Your task to perform on an android device: Go to ESPN.com Image 0: 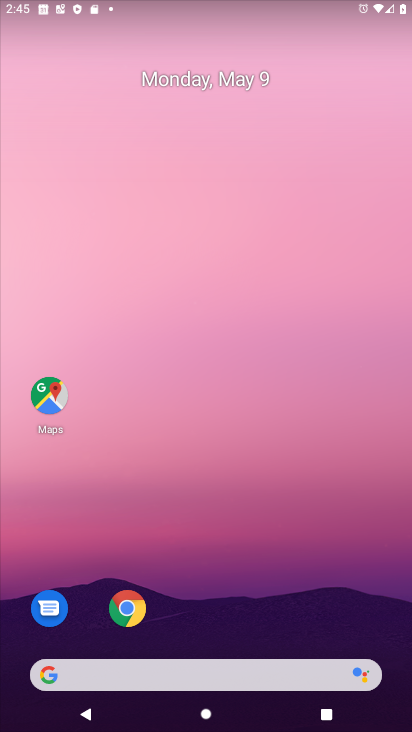
Step 0: click (233, 674)
Your task to perform on an android device: Go to ESPN.com Image 1: 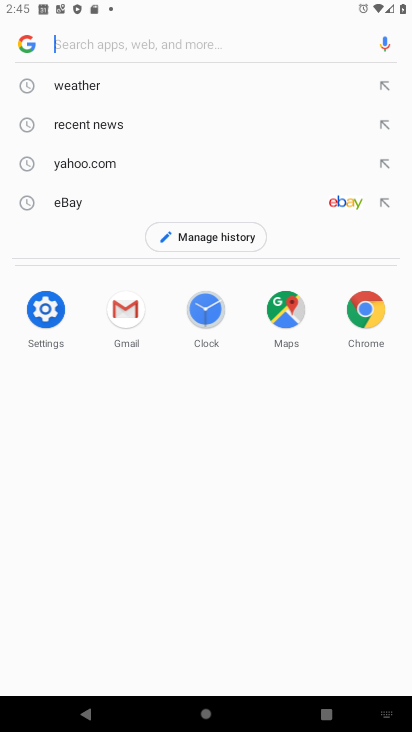
Step 1: type "espn.com"
Your task to perform on an android device: Go to ESPN.com Image 2: 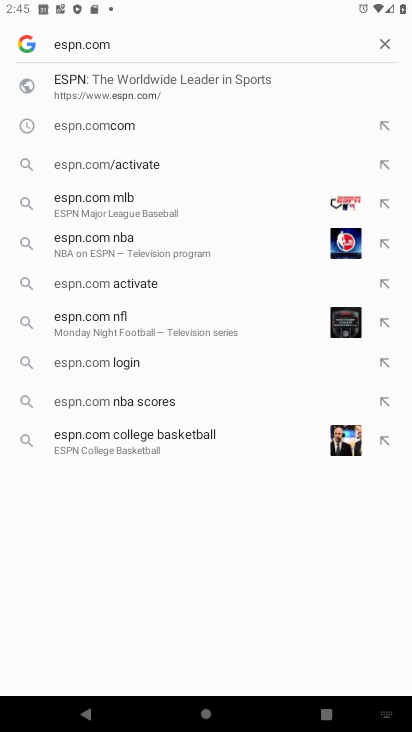
Step 2: click (142, 79)
Your task to perform on an android device: Go to ESPN.com Image 3: 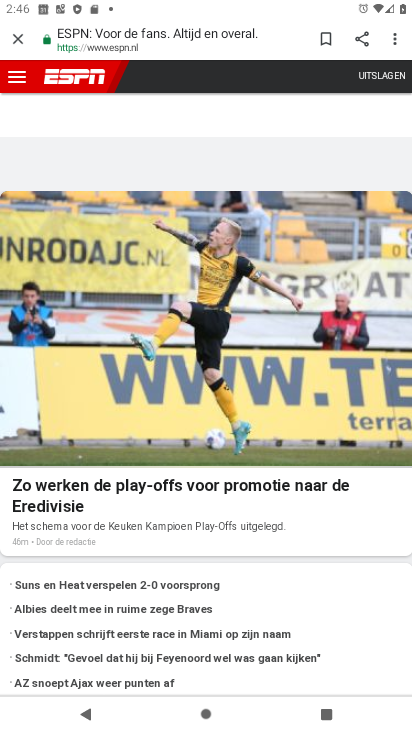
Step 3: task complete